Your task to perform on an android device: What is the news today? Image 0: 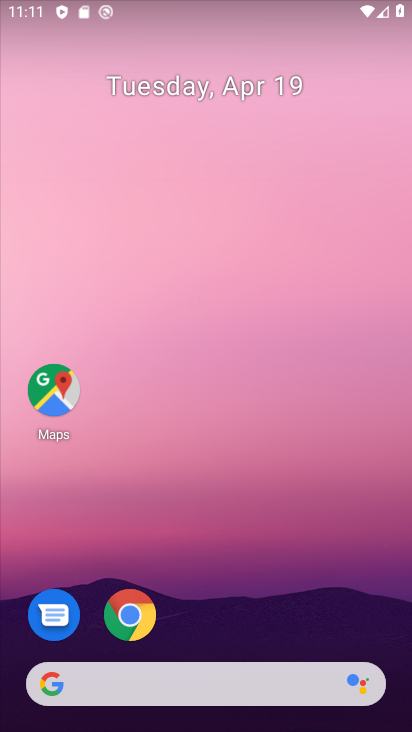
Step 0: click (215, 246)
Your task to perform on an android device: What is the news today? Image 1: 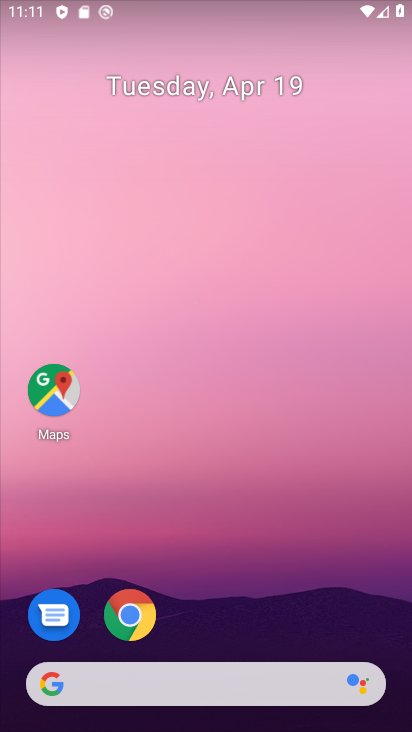
Step 1: drag from (214, 642) to (181, 300)
Your task to perform on an android device: What is the news today? Image 2: 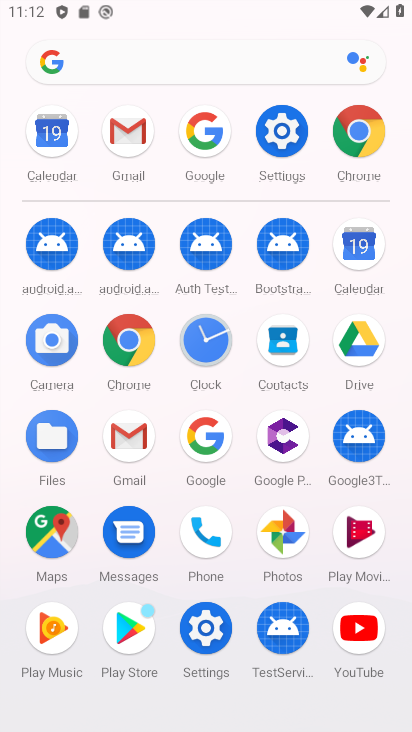
Step 2: click (211, 125)
Your task to perform on an android device: What is the news today? Image 3: 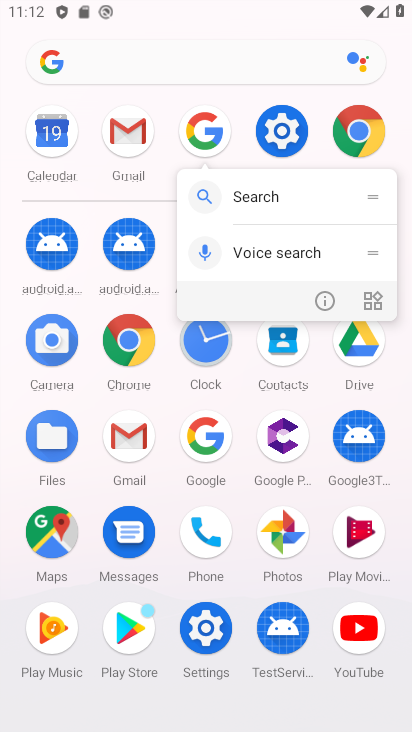
Step 3: click (203, 130)
Your task to perform on an android device: What is the news today? Image 4: 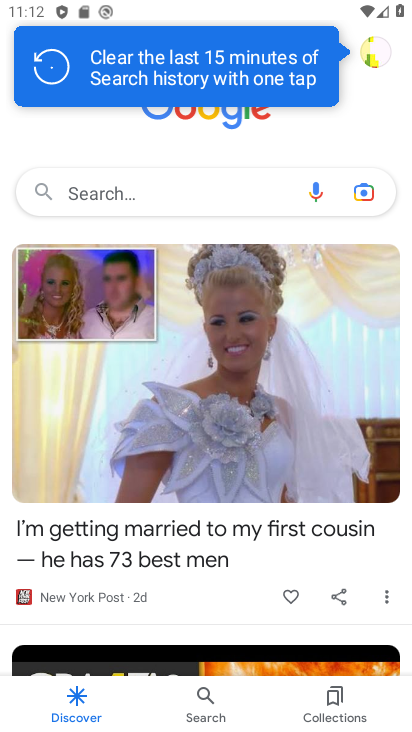
Step 4: click (165, 197)
Your task to perform on an android device: What is the news today? Image 5: 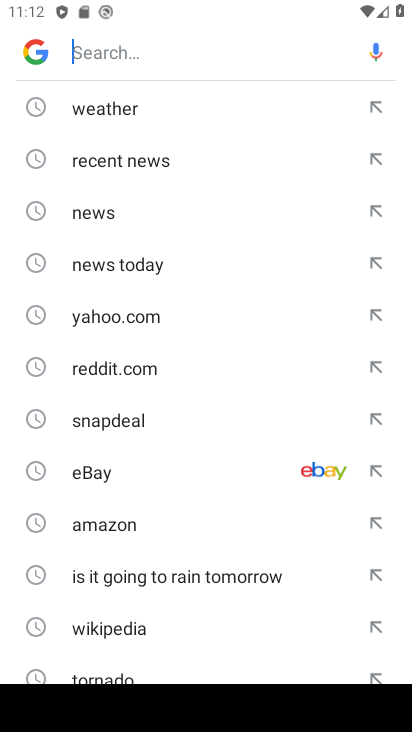
Step 5: click (113, 206)
Your task to perform on an android device: What is the news today? Image 6: 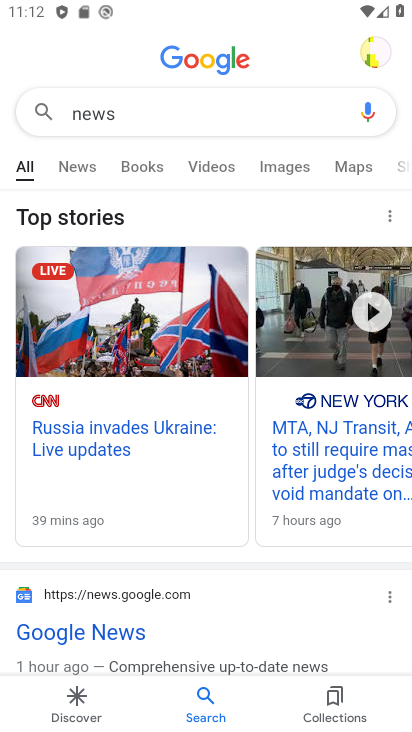
Step 6: task complete